Your task to perform on an android device: change the clock style Image 0: 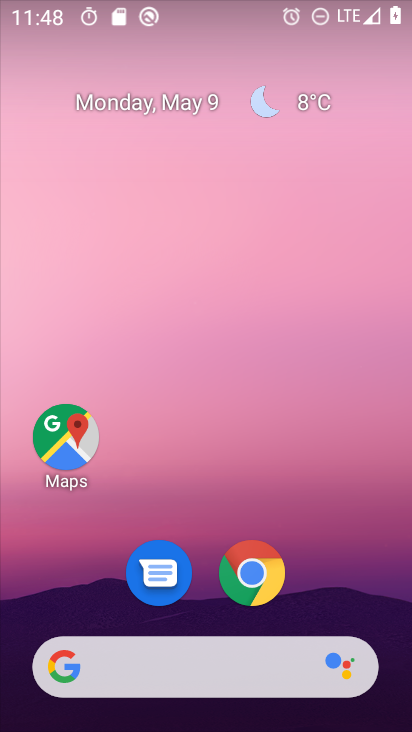
Step 0: drag from (352, 566) to (275, 112)
Your task to perform on an android device: change the clock style Image 1: 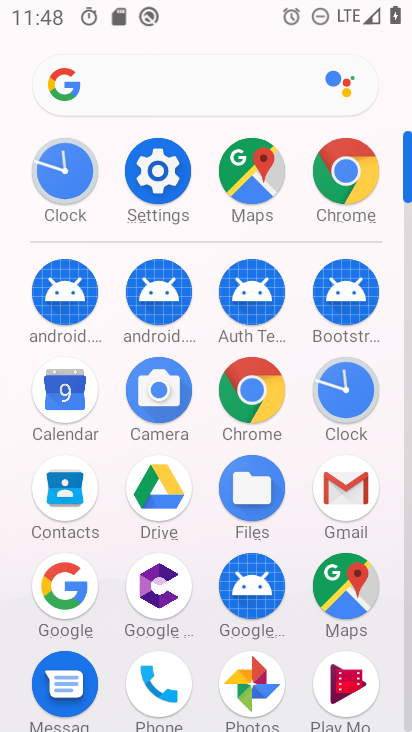
Step 1: click (333, 393)
Your task to perform on an android device: change the clock style Image 2: 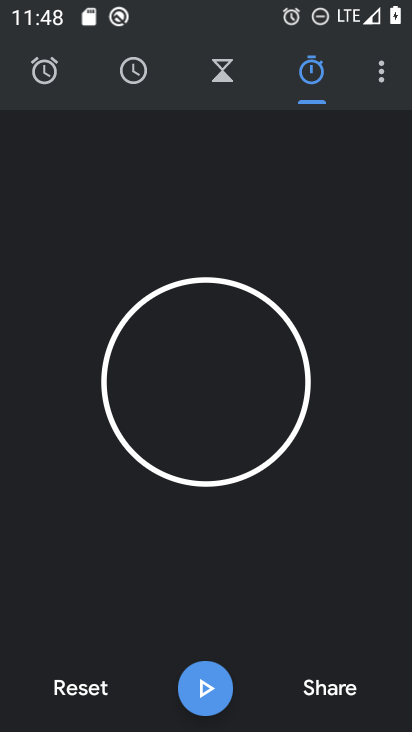
Step 2: click (386, 83)
Your task to perform on an android device: change the clock style Image 3: 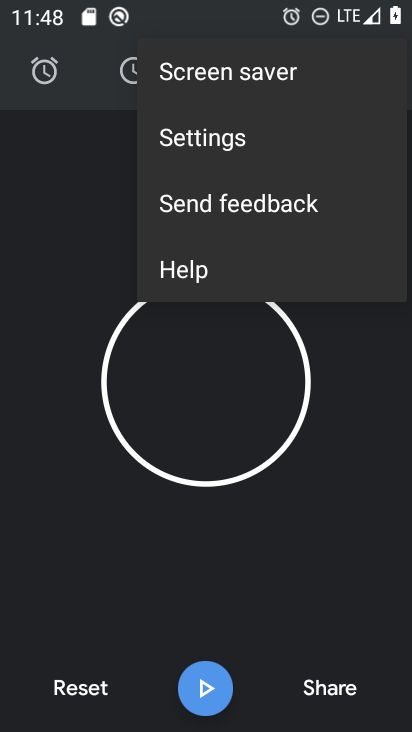
Step 3: click (245, 150)
Your task to perform on an android device: change the clock style Image 4: 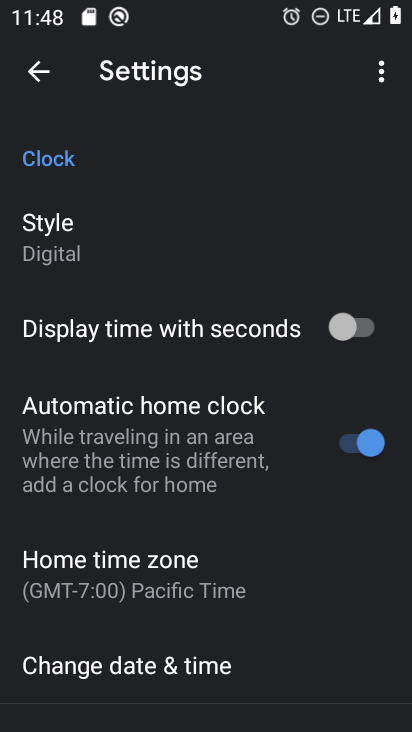
Step 4: drag from (294, 609) to (268, 220)
Your task to perform on an android device: change the clock style Image 5: 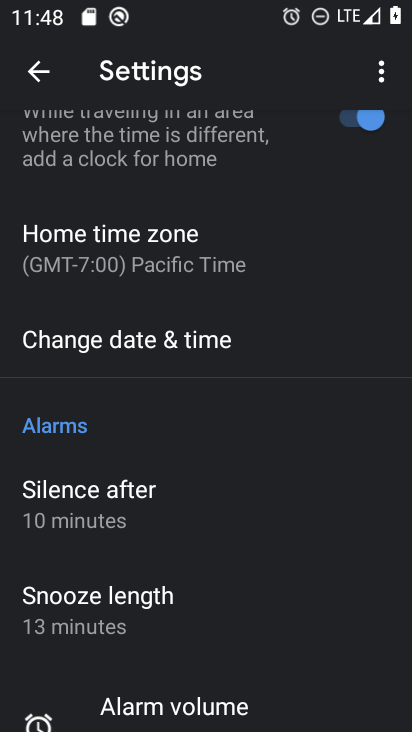
Step 5: drag from (199, 581) to (204, 275)
Your task to perform on an android device: change the clock style Image 6: 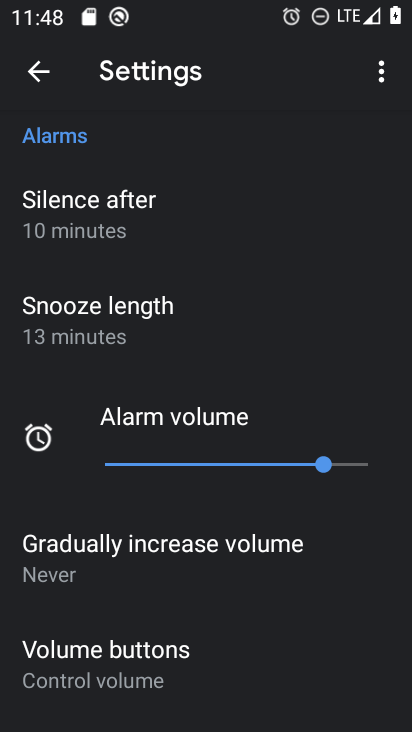
Step 6: drag from (227, 225) to (227, 670)
Your task to perform on an android device: change the clock style Image 7: 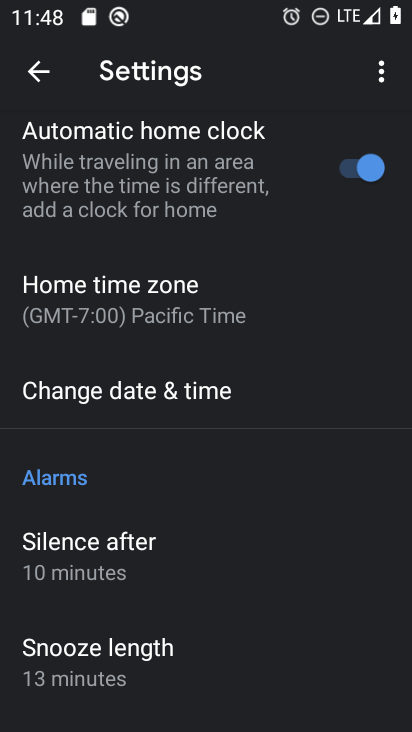
Step 7: drag from (213, 261) to (251, 615)
Your task to perform on an android device: change the clock style Image 8: 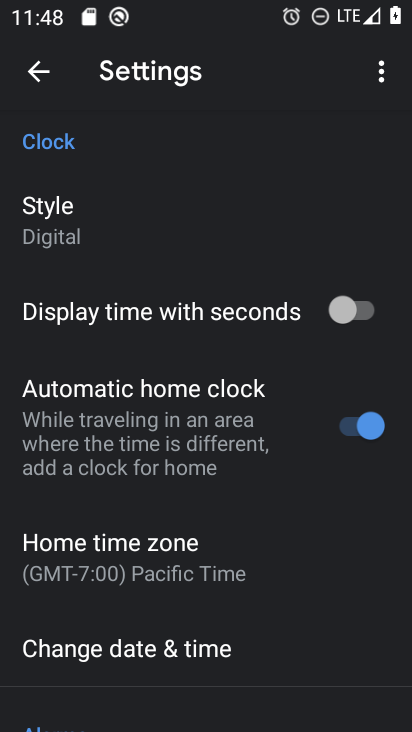
Step 8: drag from (70, 178) to (109, 325)
Your task to perform on an android device: change the clock style Image 9: 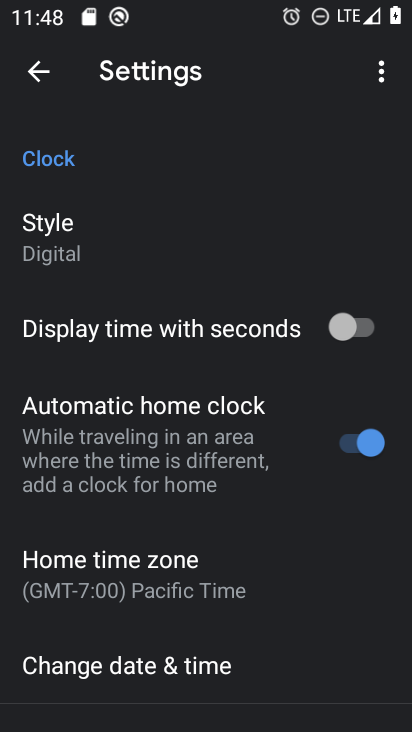
Step 9: click (62, 254)
Your task to perform on an android device: change the clock style Image 10: 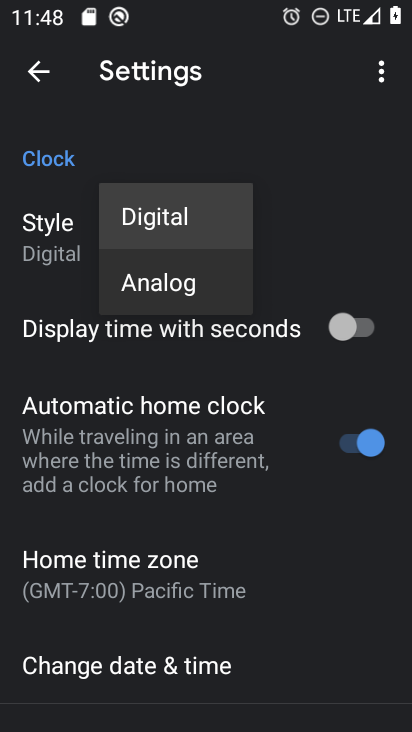
Step 10: click (191, 296)
Your task to perform on an android device: change the clock style Image 11: 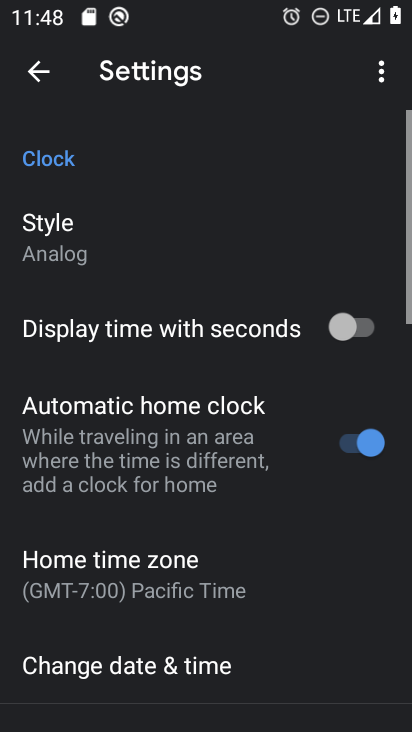
Step 11: task complete